Your task to perform on an android device: Go to sound settings Image 0: 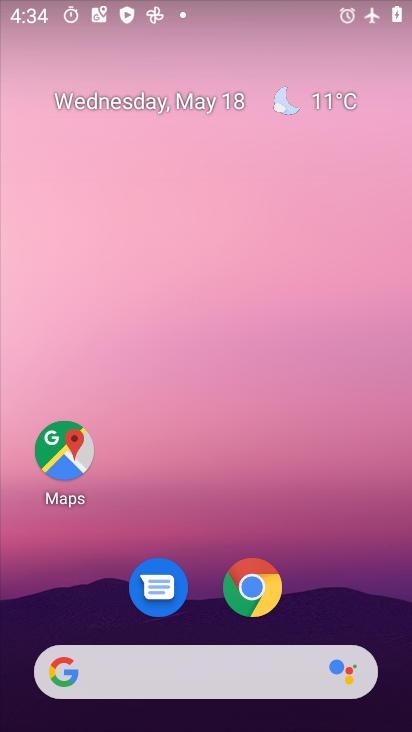
Step 0: drag from (353, 610) to (290, 287)
Your task to perform on an android device: Go to sound settings Image 1: 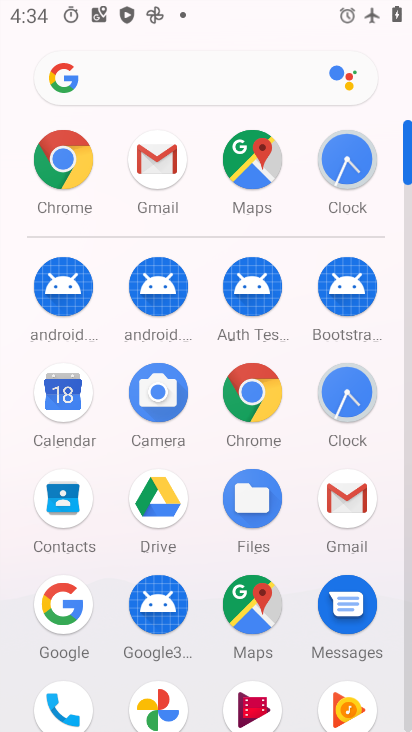
Step 1: drag from (350, 506) to (335, 121)
Your task to perform on an android device: Go to sound settings Image 2: 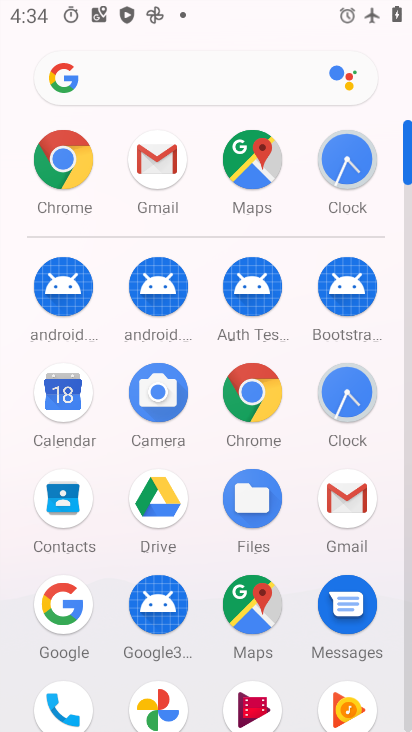
Step 2: drag from (345, 651) to (358, 474)
Your task to perform on an android device: Go to sound settings Image 3: 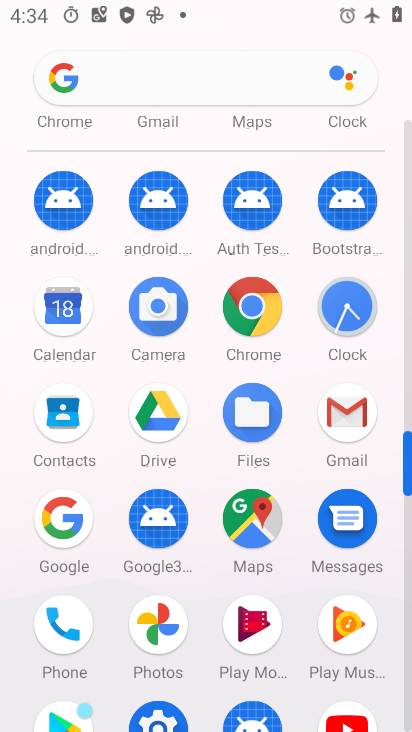
Step 3: drag from (239, 615) to (234, 309)
Your task to perform on an android device: Go to sound settings Image 4: 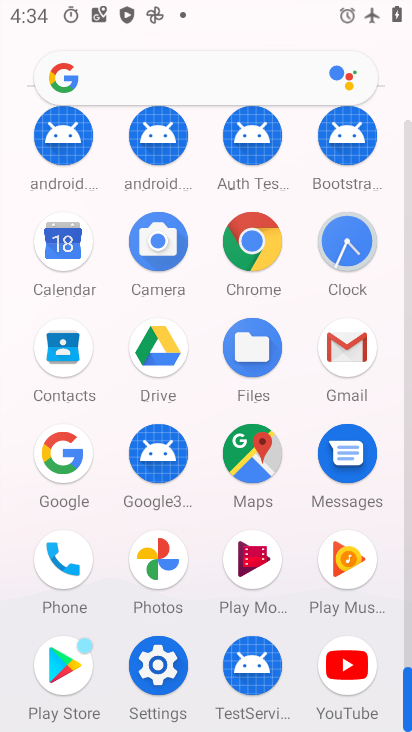
Step 4: click (158, 665)
Your task to perform on an android device: Go to sound settings Image 5: 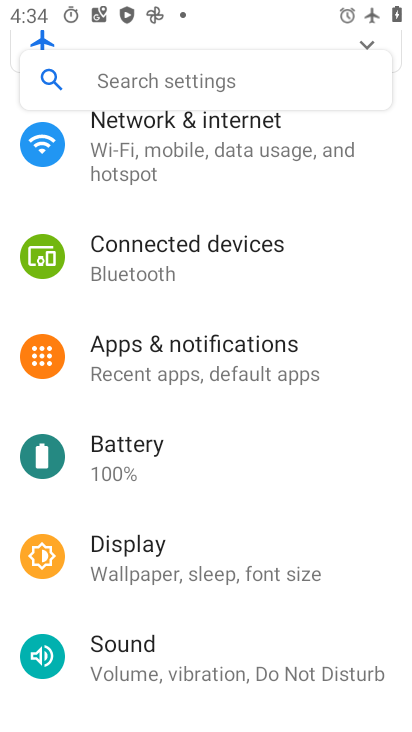
Step 5: click (174, 677)
Your task to perform on an android device: Go to sound settings Image 6: 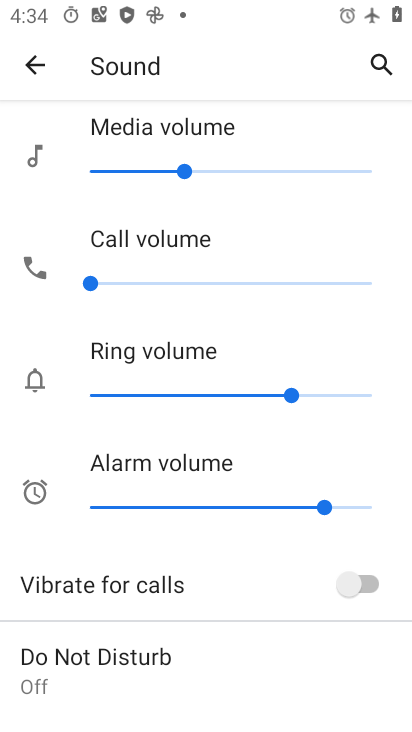
Step 6: task complete